Your task to perform on an android device: Check the news Image 0: 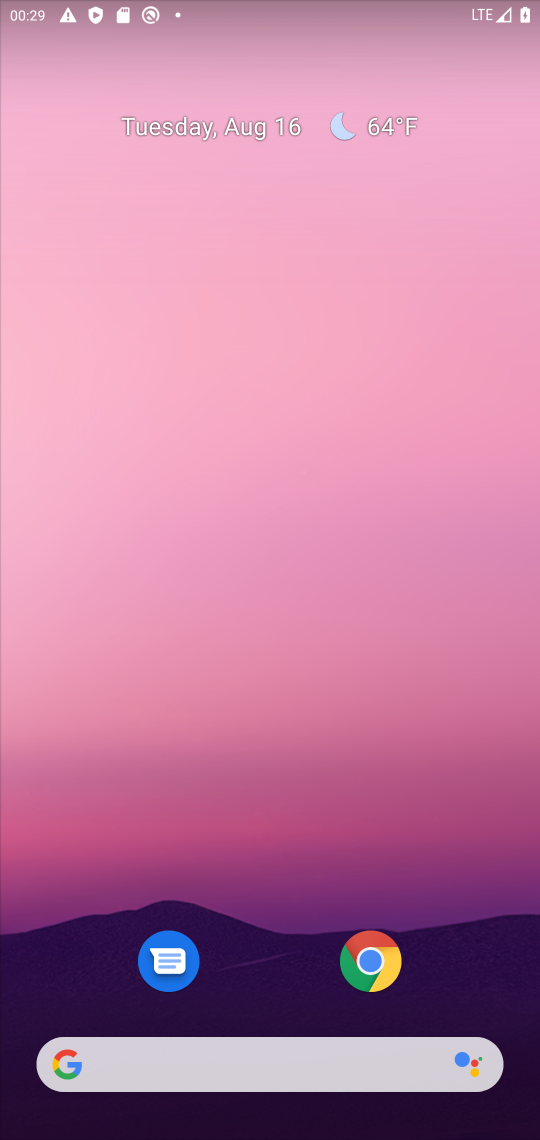
Step 0: press home button
Your task to perform on an android device: Check the news Image 1: 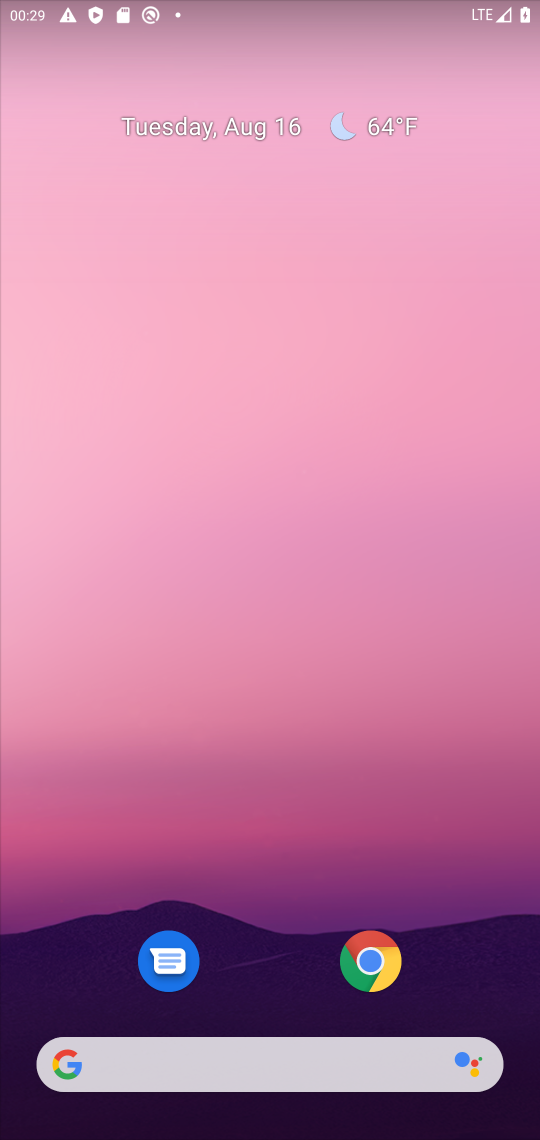
Step 1: drag from (241, 957) to (195, 329)
Your task to perform on an android device: Check the news Image 2: 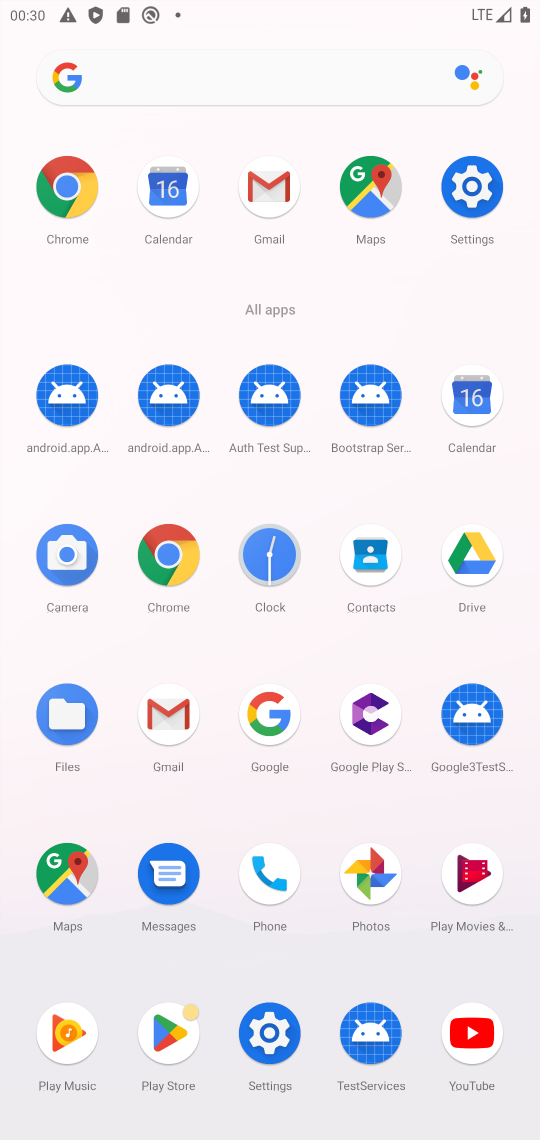
Step 2: click (160, 559)
Your task to perform on an android device: Check the news Image 3: 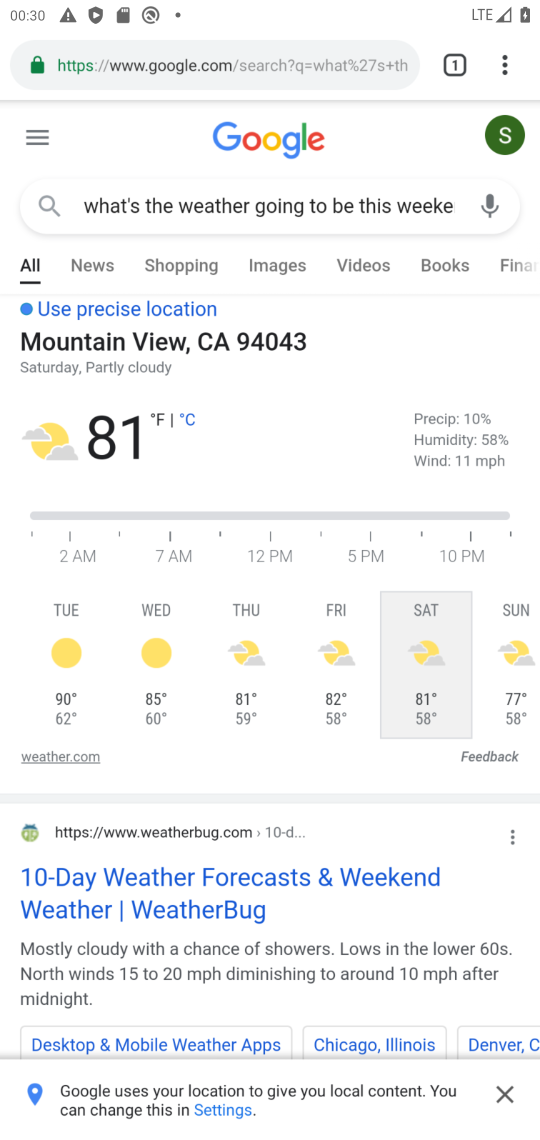
Step 3: click (237, 65)
Your task to perform on an android device: Check the news Image 4: 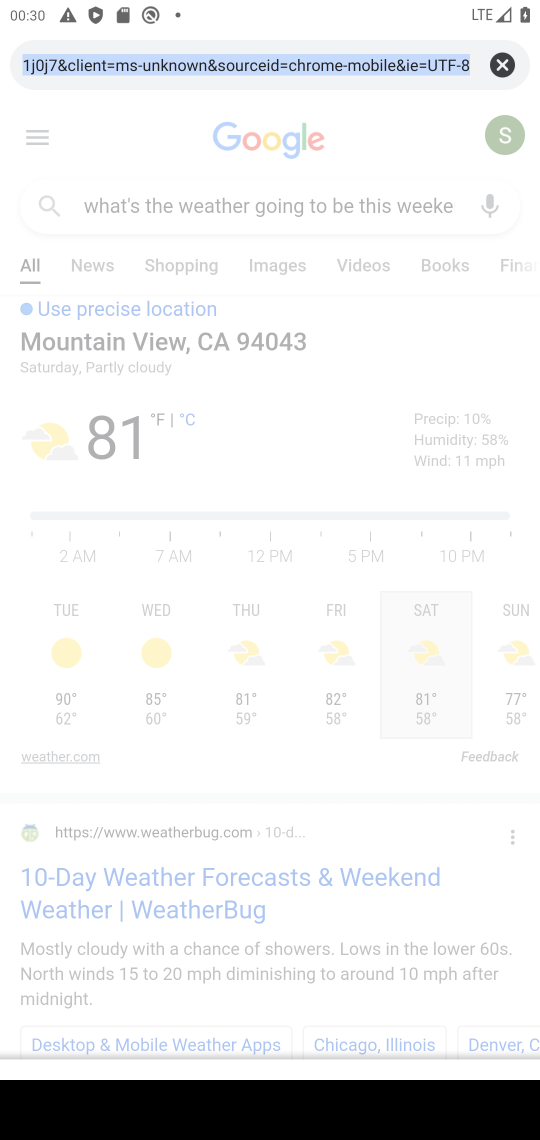
Step 4: type "news"
Your task to perform on an android device: Check the news Image 5: 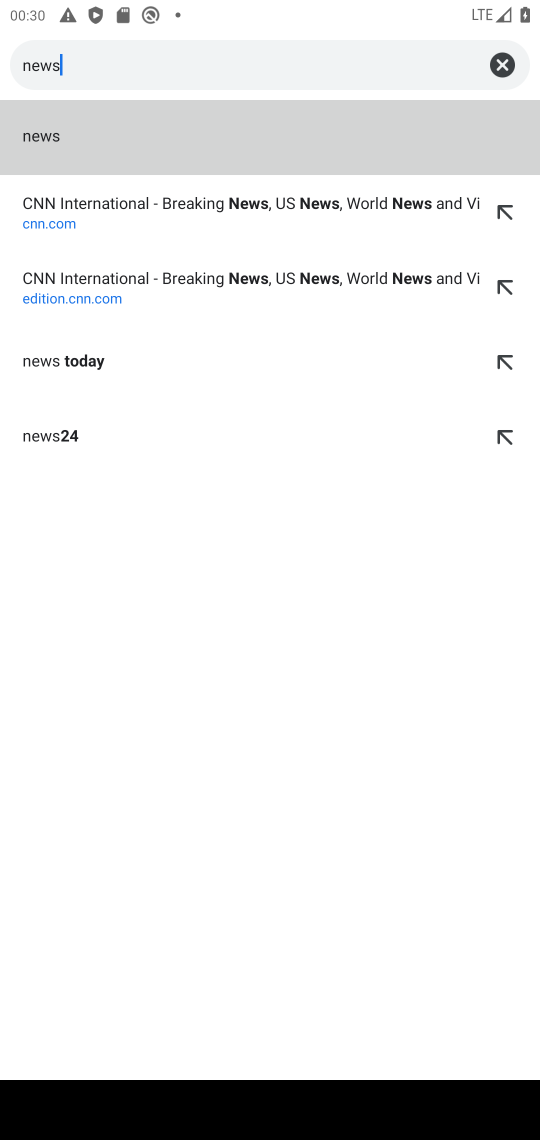
Step 5: type ""
Your task to perform on an android device: Check the news Image 6: 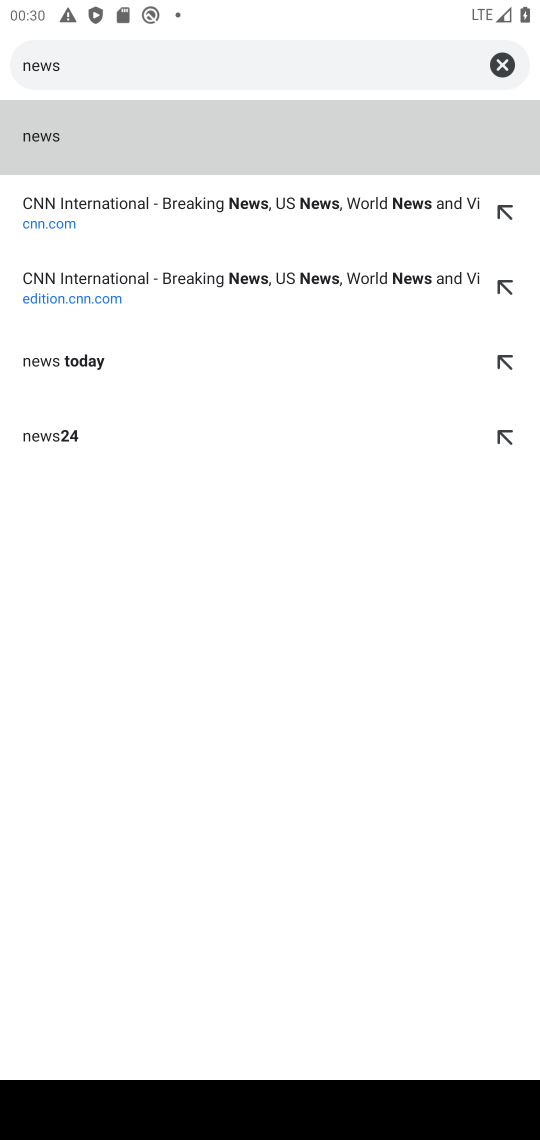
Step 6: click (54, 138)
Your task to perform on an android device: Check the news Image 7: 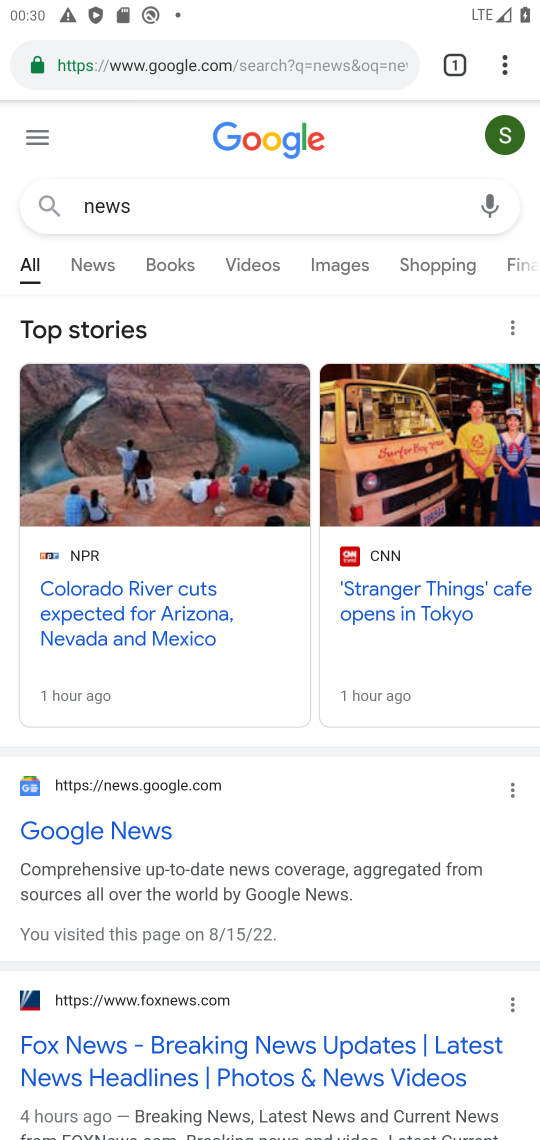
Step 7: task complete